Your task to perform on an android device: turn on airplane mode Image 0: 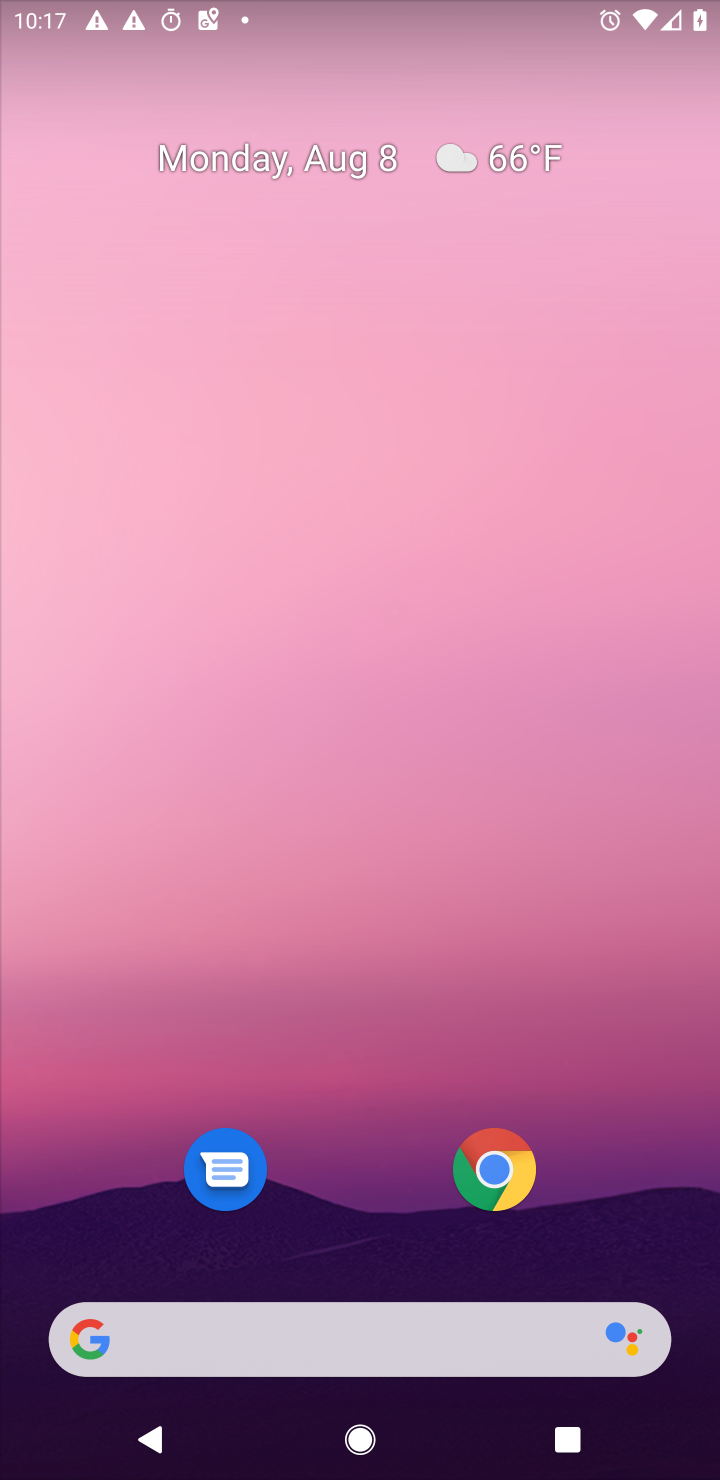
Step 0: drag from (668, 201) to (589, 1079)
Your task to perform on an android device: turn on airplane mode Image 1: 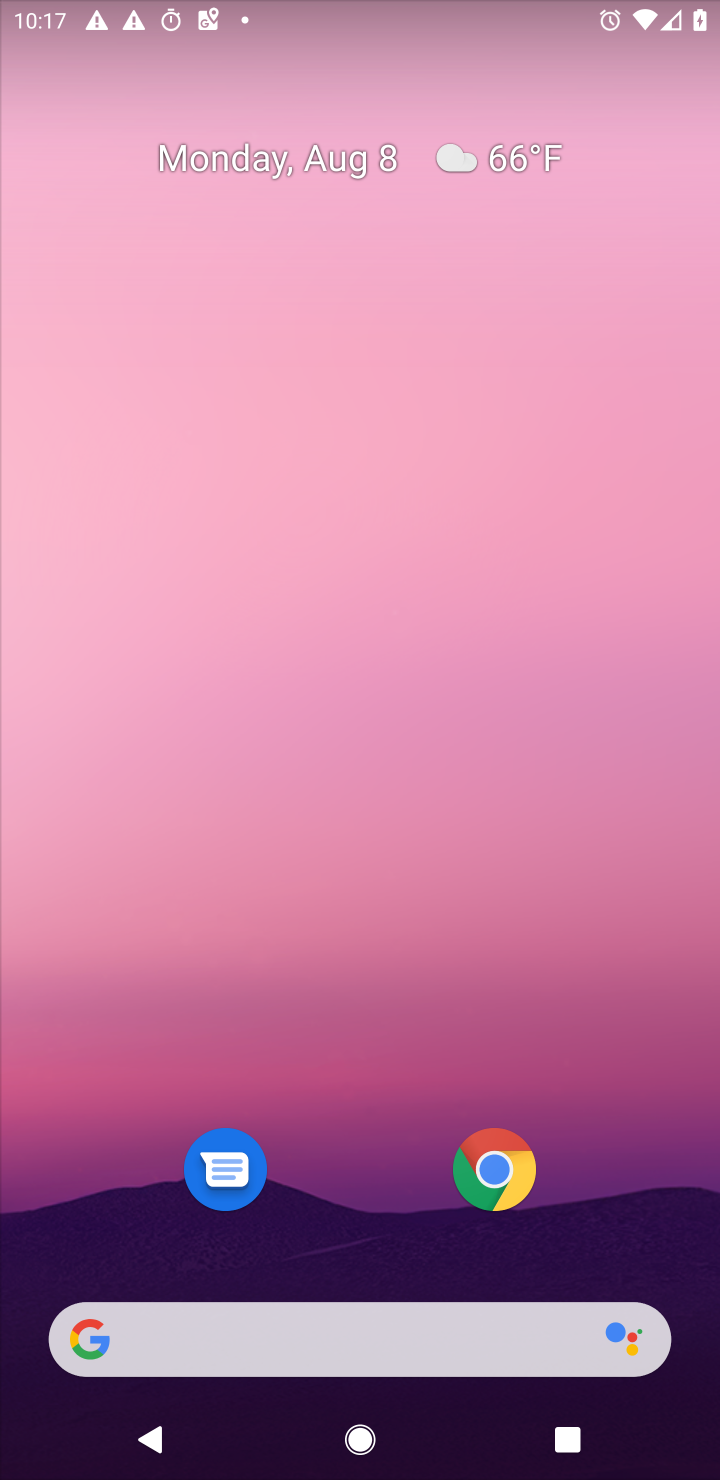
Step 1: drag from (638, 17) to (473, 1171)
Your task to perform on an android device: turn on airplane mode Image 2: 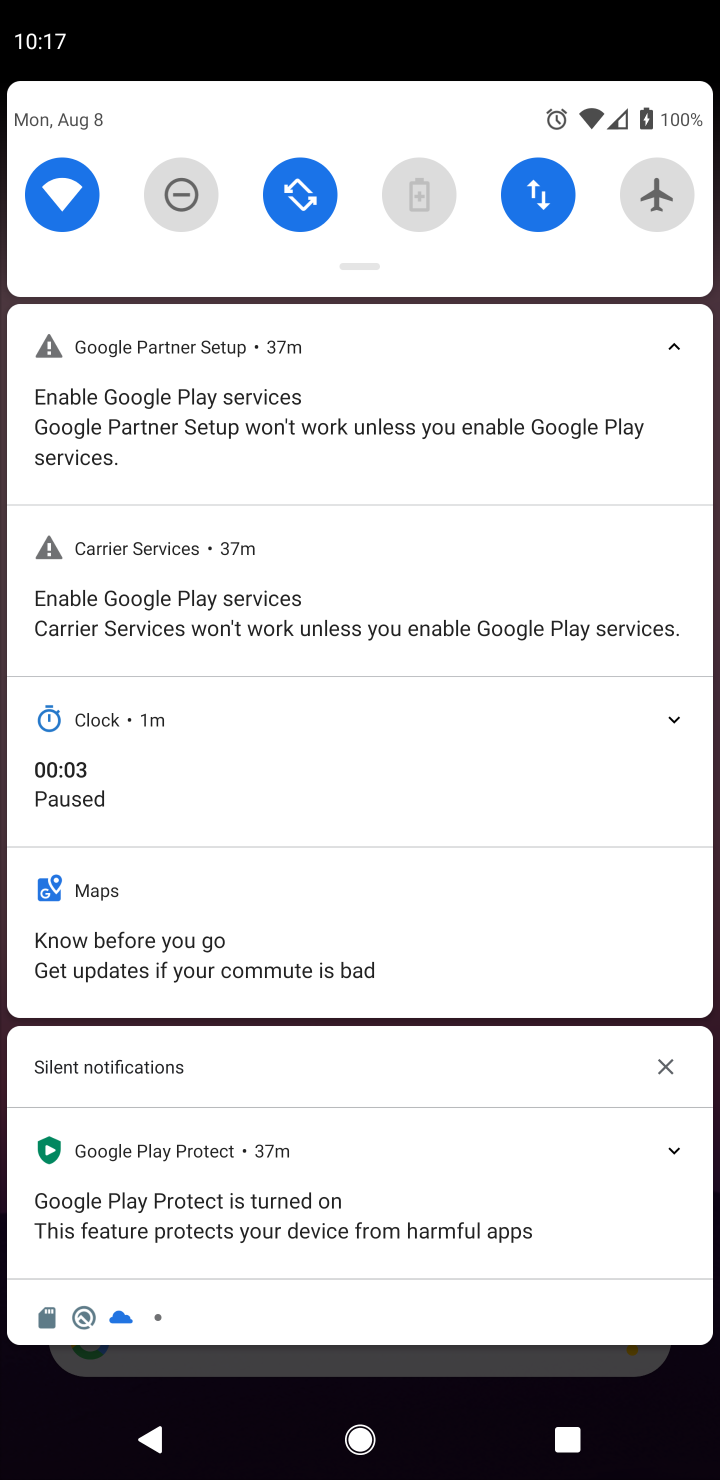
Step 2: click (669, 185)
Your task to perform on an android device: turn on airplane mode Image 3: 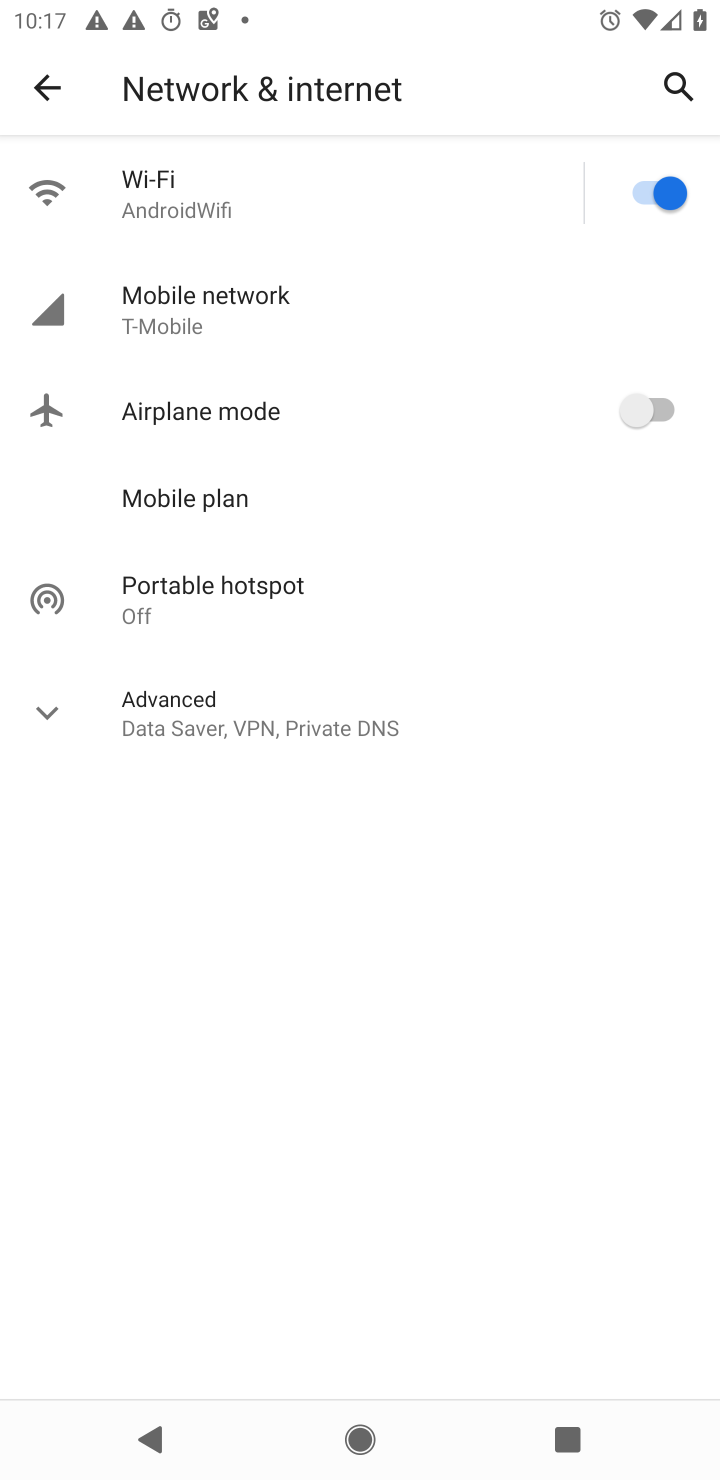
Step 3: click (650, 400)
Your task to perform on an android device: turn on airplane mode Image 4: 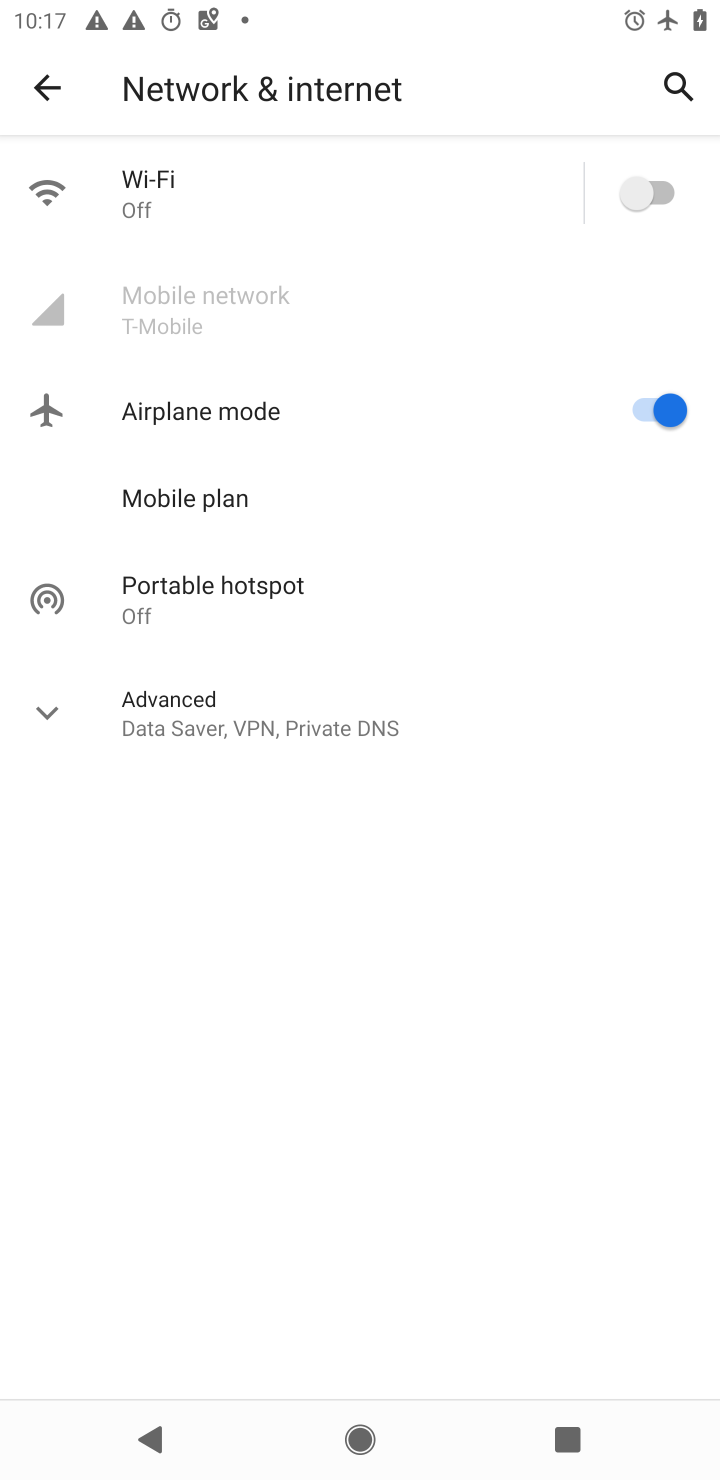
Step 4: task complete